Your task to perform on an android device: add a contact in the contacts app Image 0: 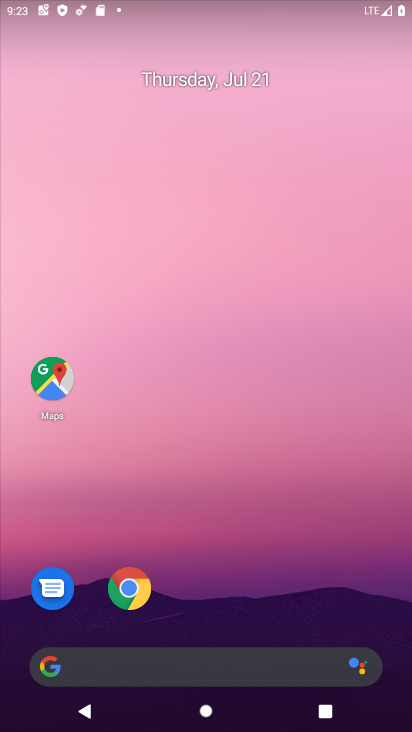
Step 0: drag from (390, 705) to (322, 86)
Your task to perform on an android device: add a contact in the contacts app Image 1: 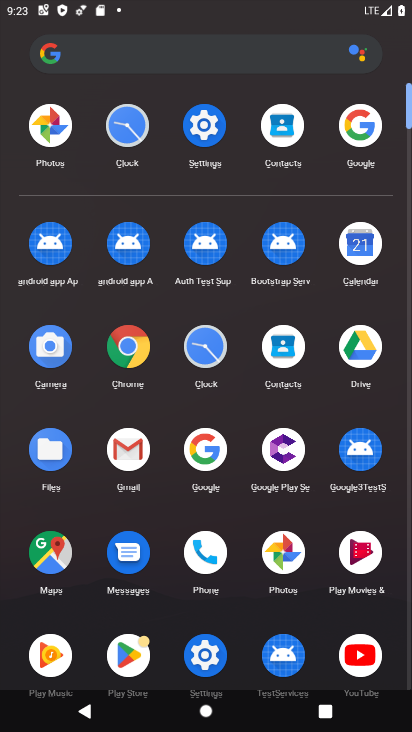
Step 1: click (274, 353)
Your task to perform on an android device: add a contact in the contacts app Image 2: 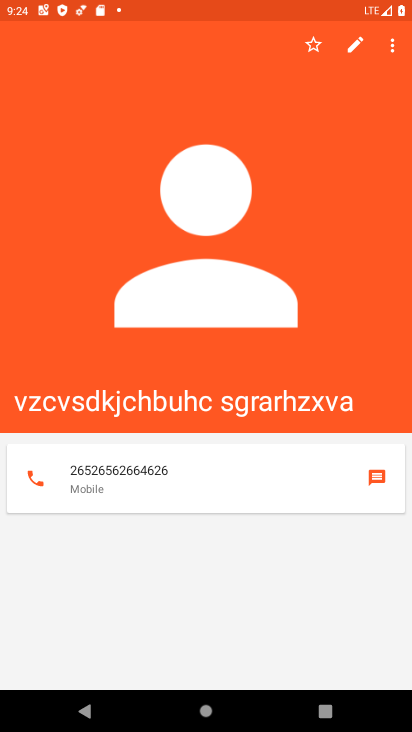
Step 2: task complete